Your task to perform on an android device: change the clock display to digital Image 0: 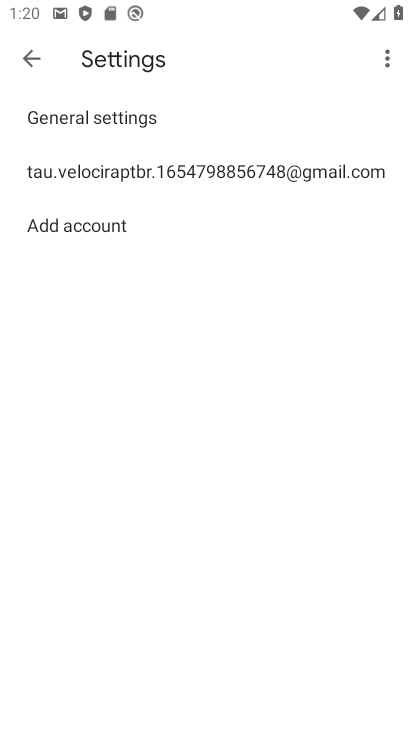
Step 0: press home button
Your task to perform on an android device: change the clock display to digital Image 1: 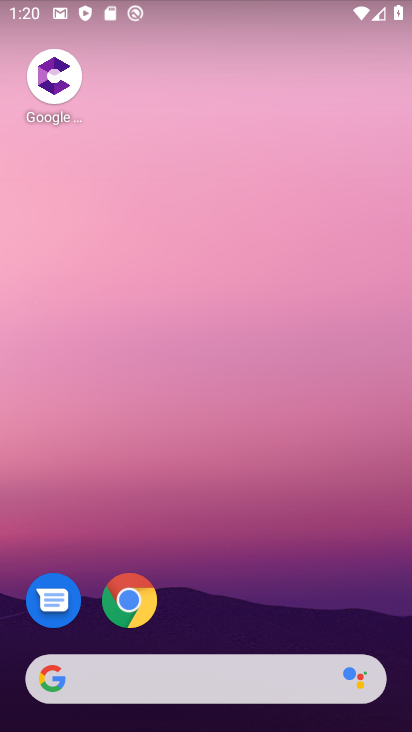
Step 1: drag from (302, 570) to (380, 4)
Your task to perform on an android device: change the clock display to digital Image 2: 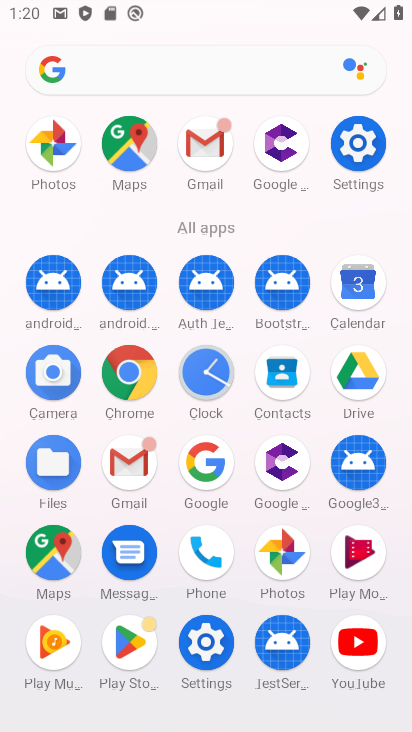
Step 2: click (203, 375)
Your task to perform on an android device: change the clock display to digital Image 3: 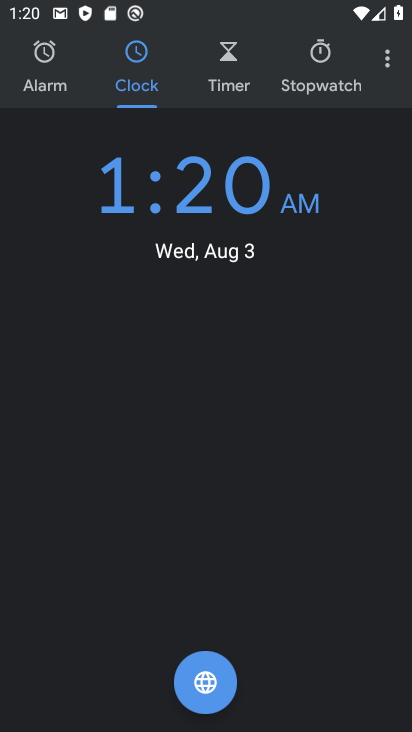
Step 3: click (385, 51)
Your task to perform on an android device: change the clock display to digital Image 4: 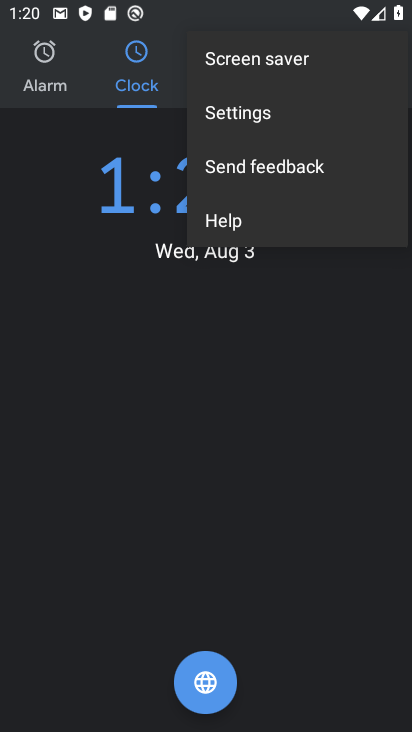
Step 4: click (296, 103)
Your task to perform on an android device: change the clock display to digital Image 5: 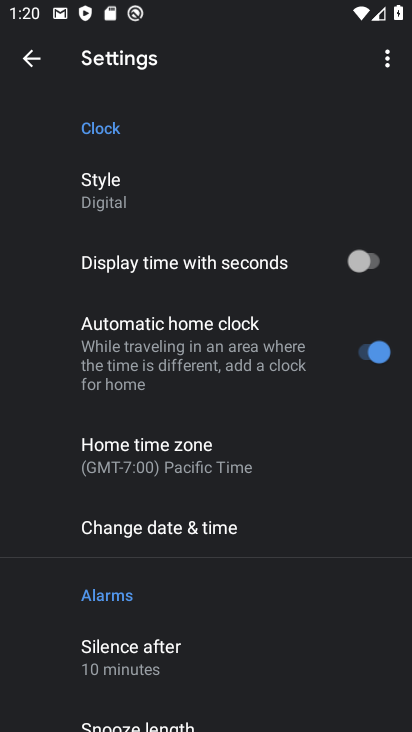
Step 5: task complete